Your task to perform on an android device: Play the last video I watched on Youtube Image 0: 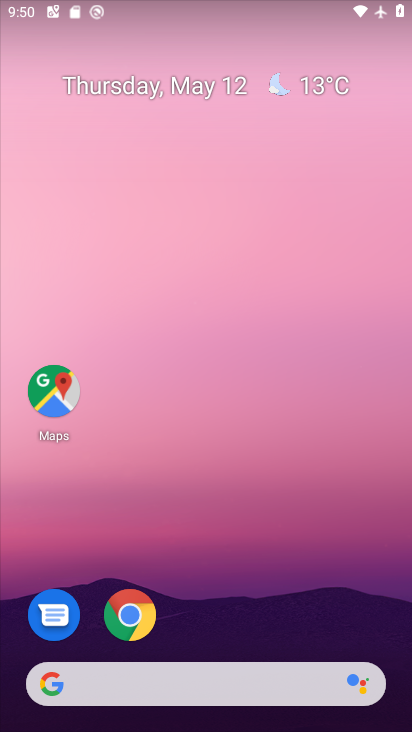
Step 0: drag from (228, 629) to (191, 233)
Your task to perform on an android device: Play the last video I watched on Youtube Image 1: 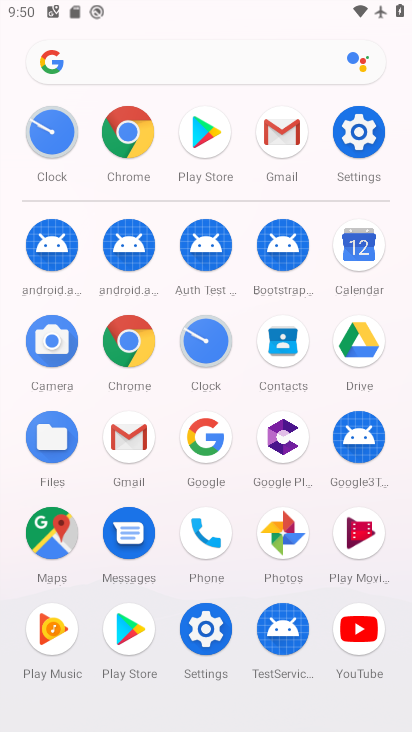
Step 1: click (353, 631)
Your task to perform on an android device: Play the last video I watched on Youtube Image 2: 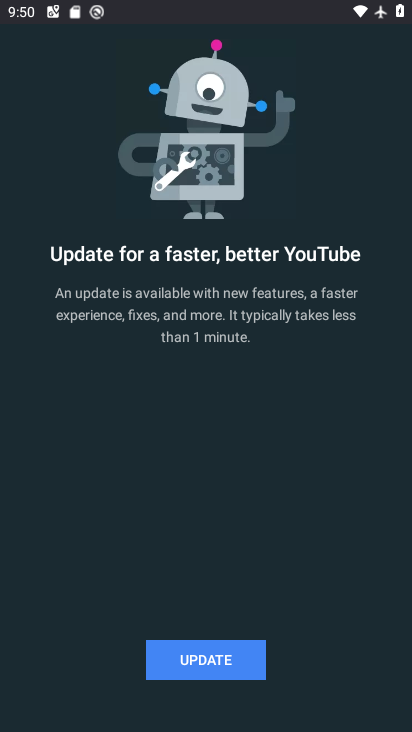
Step 2: press home button
Your task to perform on an android device: Play the last video I watched on Youtube Image 3: 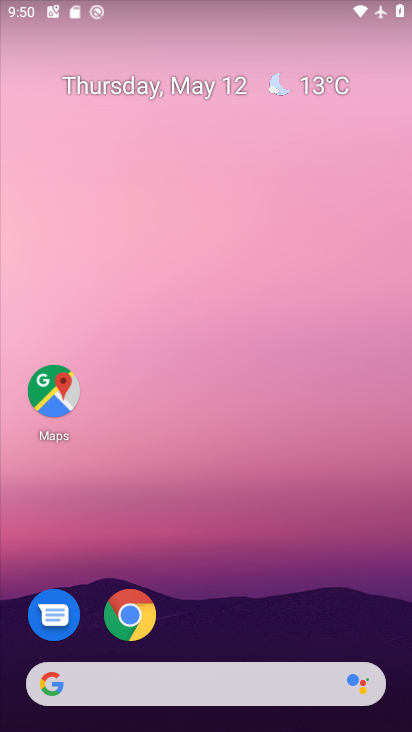
Step 3: drag from (272, 583) to (197, 130)
Your task to perform on an android device: Play the last video I watched on Youtube Image 4: 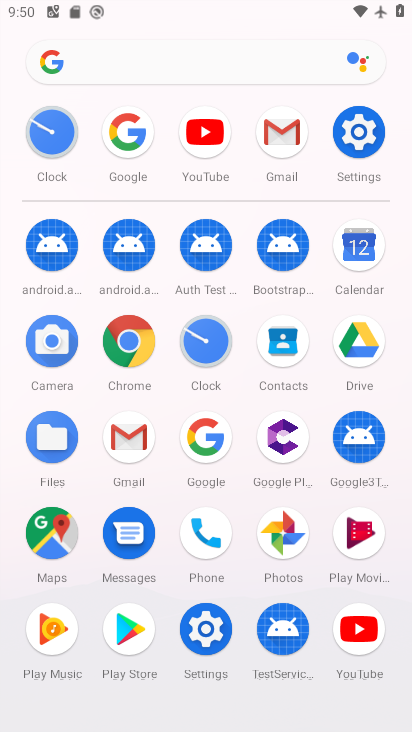
Step 4: click (346, 639)
Your task to perform on an android device: Play the last video I watched on Youtube Image 5: 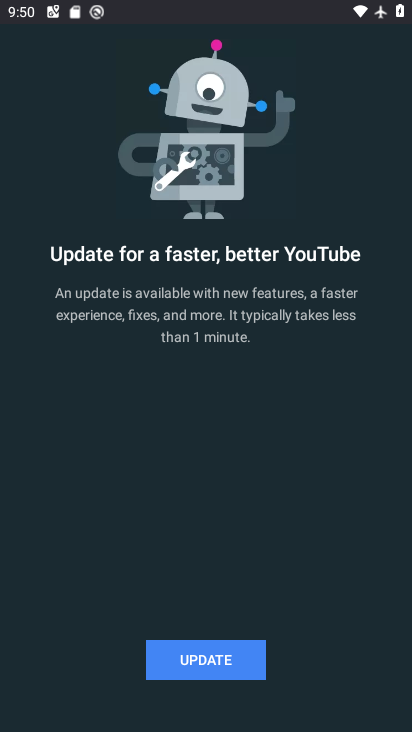
Step 5: press home button
Your task to perform on an android device: Play the last video I watched on Youtube Image 6: 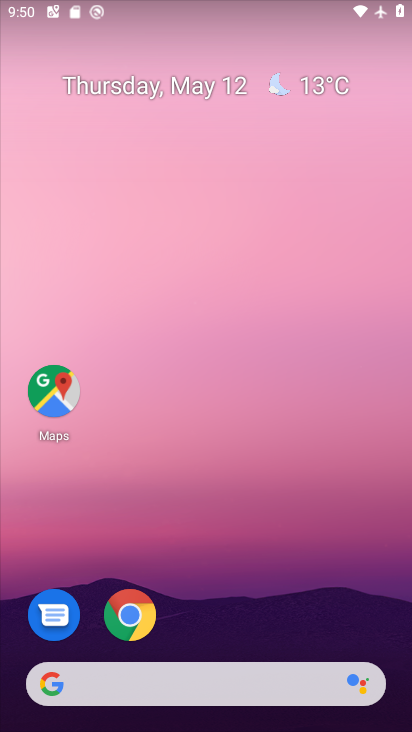
Step 6: drag from (268, 562) to (194, 154)
Your task to perform on an android device: Play the last video I watched on Youtube Image 7: 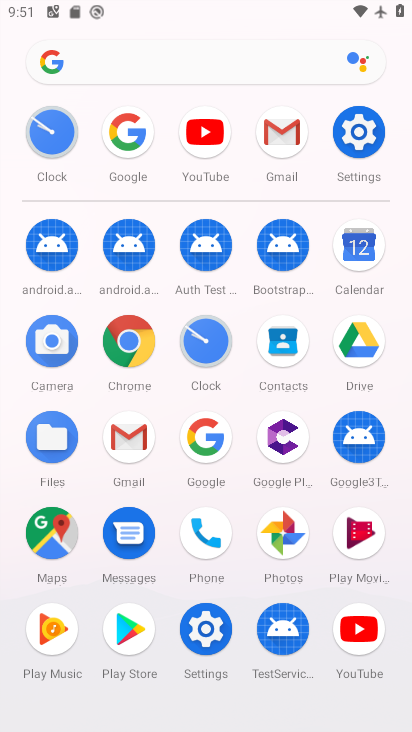
Step 7: click (346, 631)
Your task to perform on an android device: Play the last video I watched on Youtube Image 8: 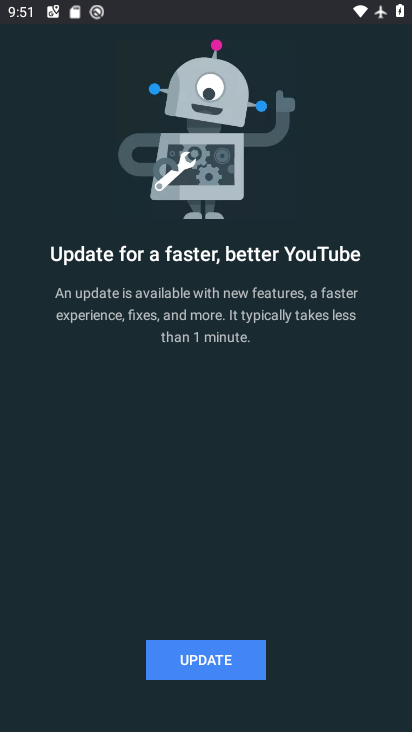
Step 8: click (194, 654)
Your task to perform on an android device: Play the last video I watched on Youtube Image 9: 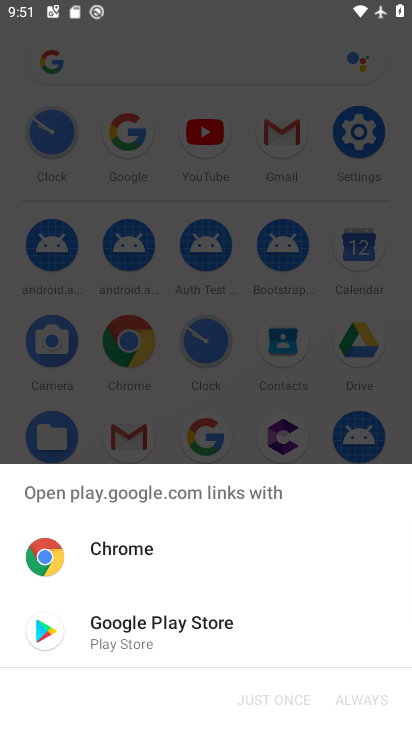
Step 9: click (118, 634)
Your task to perform on an android device: Play the last video I watched on Youtube Image 10: 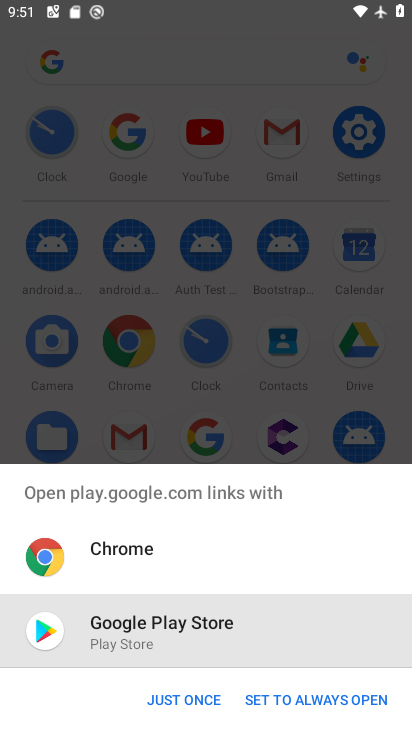
Step 10: click (194, 693)
Your task to perform on an android device: Play the last video I watched on Youtube Image 11: 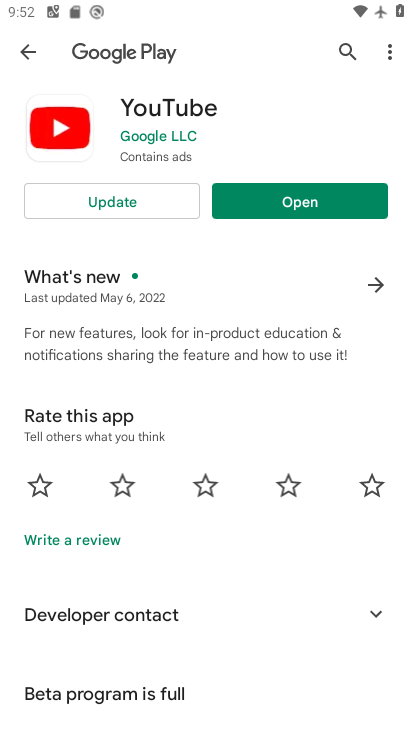
Step 11: click (125, 205)
Your task to perform on an android device: Play the last video I watched on Youtube Image 12: 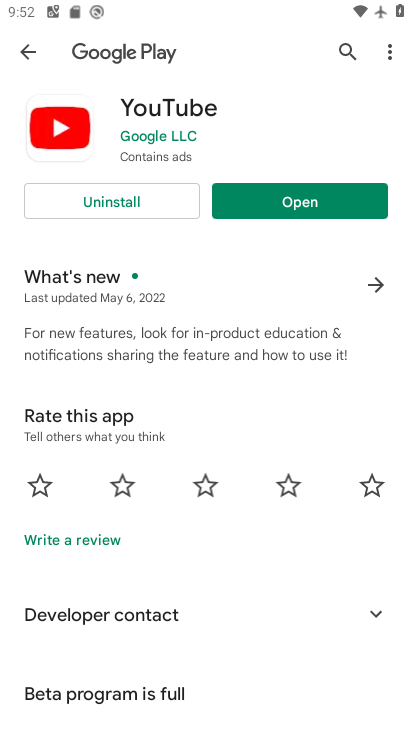
Step 12: click (256, 199)
Your task to perform on an android device: Play the last video I watched on Youtube Image 13: 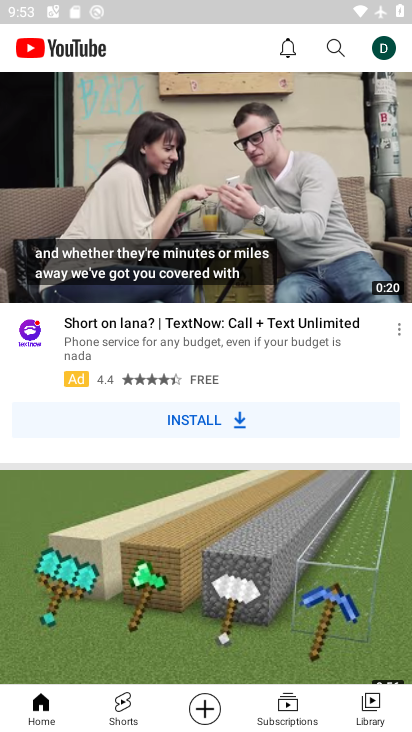
Step 13: click (370, 699)
Your task to perform on an android device: Play the last video I watched on Youtube Image 14: 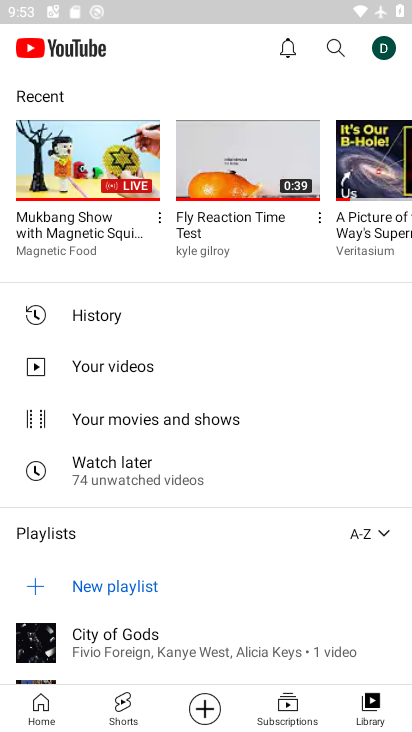
Step 14: click (80, 173)
Your task to perform on an android device: Play the last video I watched on Youtube Image 15: 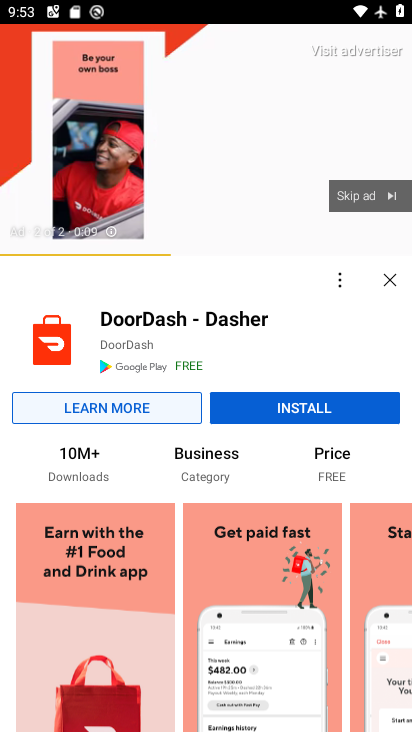
Step 15: task complete